Your task to perform on an android device: install app "YouTube Kids" Image 0: 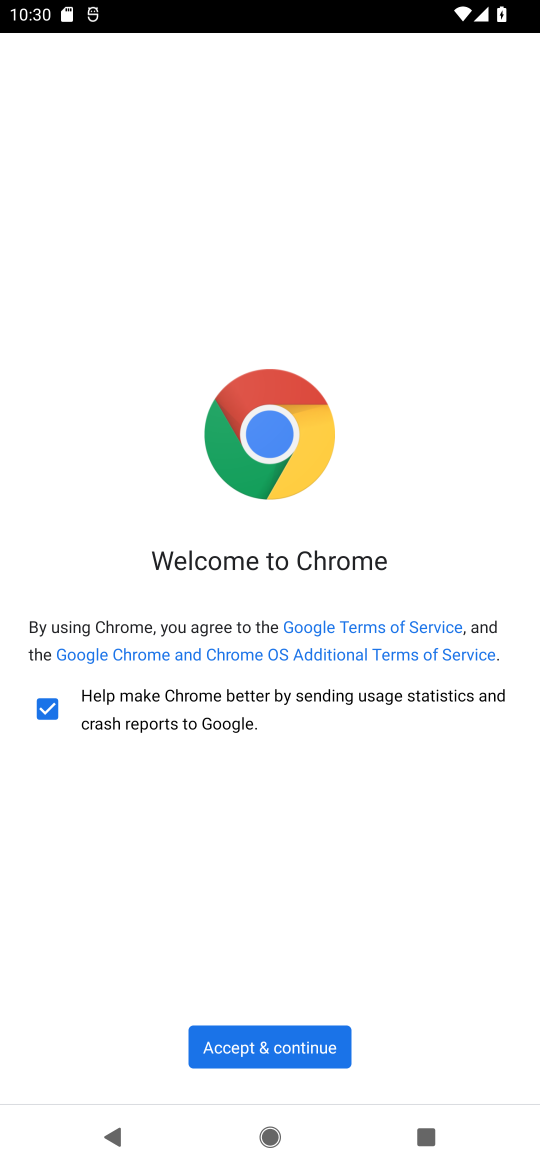
Step 0: press home button
Your task to perform on an android device: install app "YouTube Kids" Image 1: 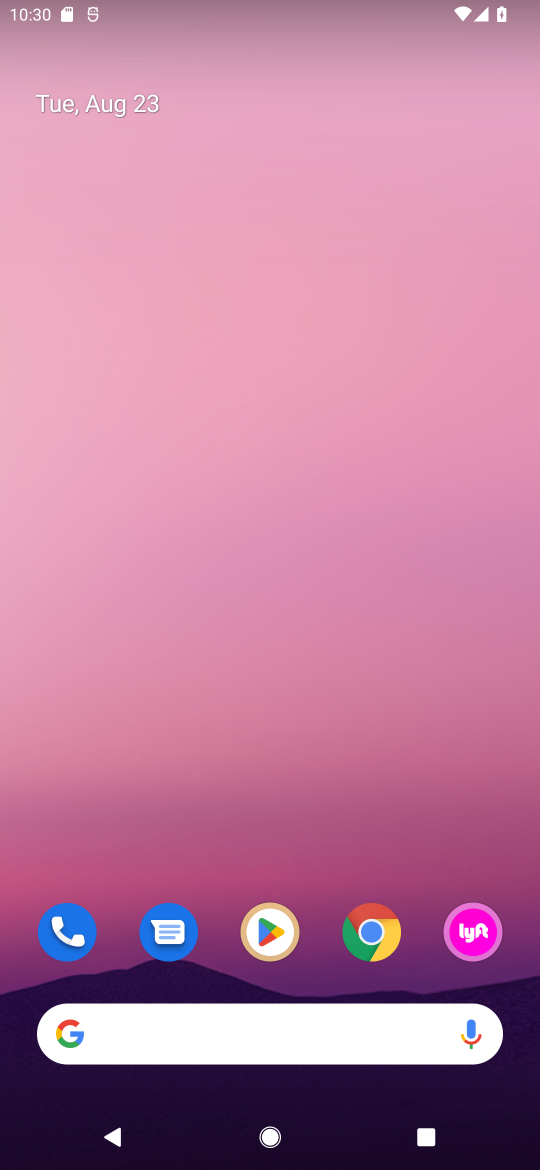
Step 1: click (283, 921)
Your task to perform on an android device: install app "YouTube Kids" Image 2: 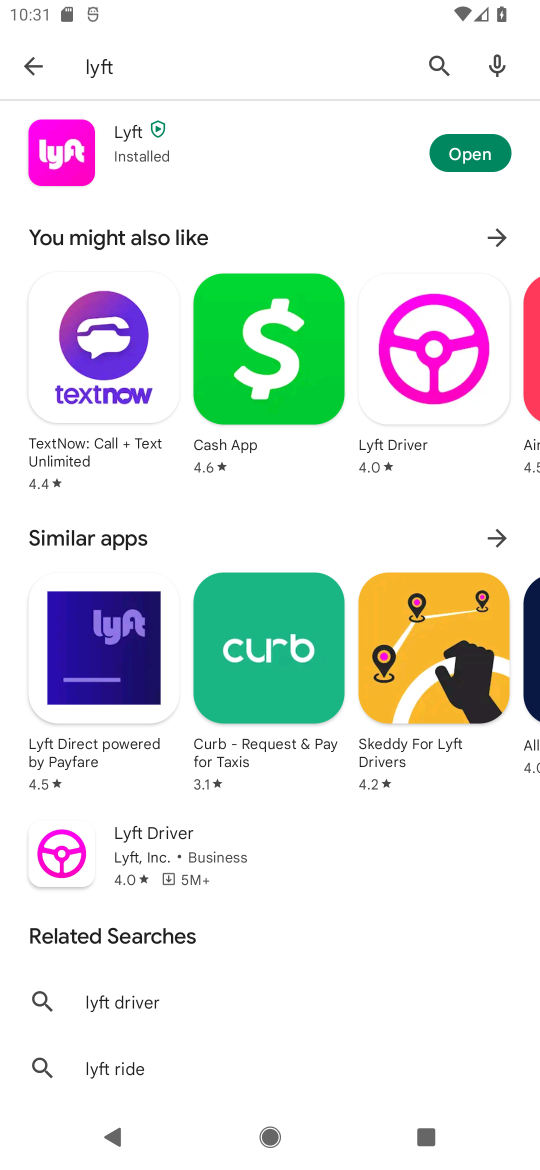
Step 2: click (459, 76)
Your task to perform on an android device: install app "YouTube Kids" Image 3: 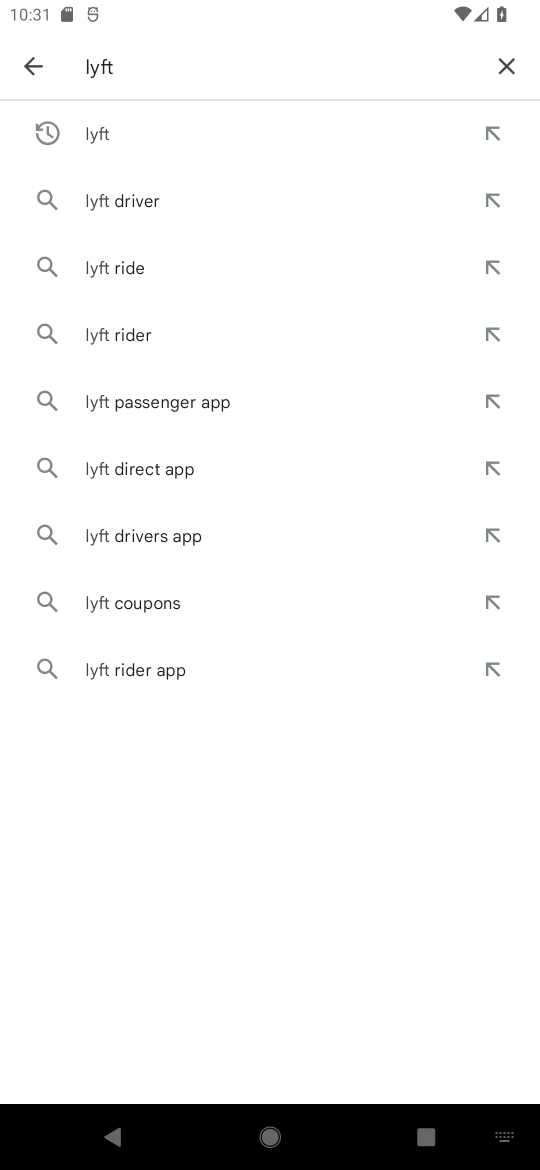
Step 3: click (491, 40)
Your task to perform on an android device: install app "YouTube Kids" Image 4: 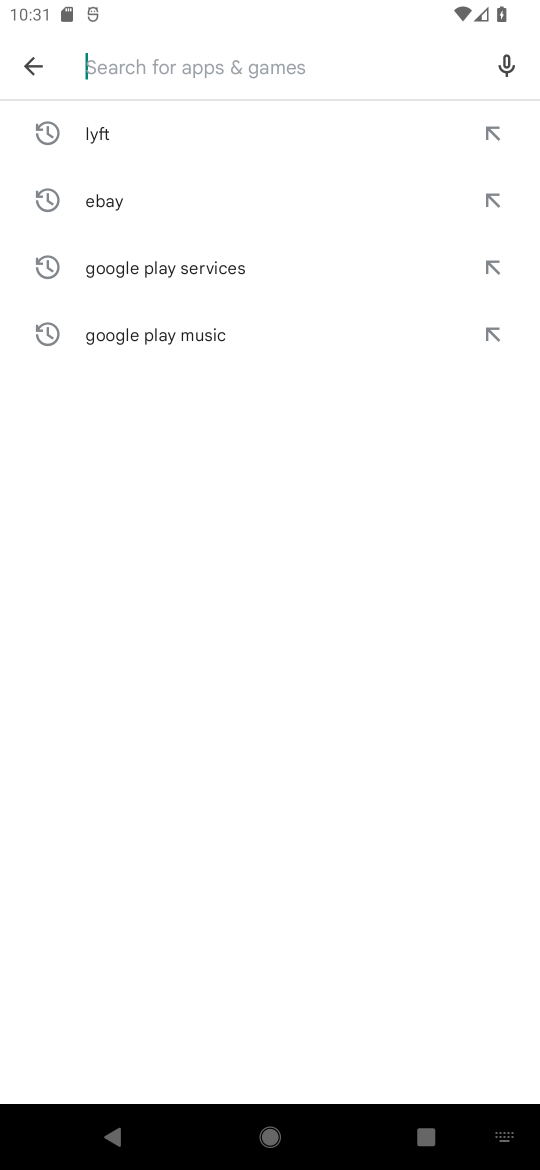
Step 4: type "YouTube Kids"
Your task to perform on an android device: install app "YouTube Kids" Image 5: 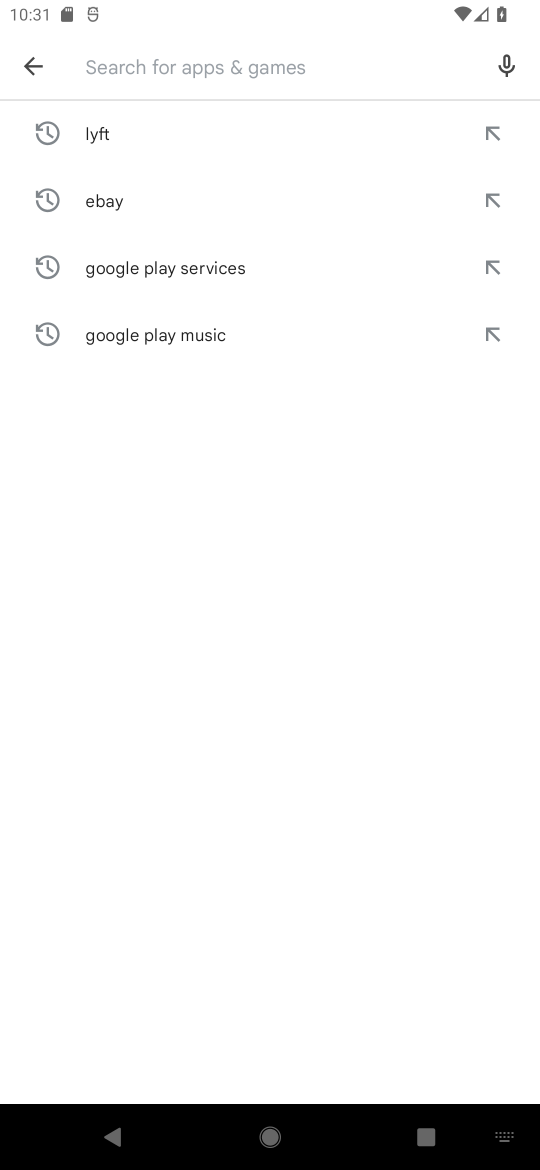
Step 5: click (240, 751)
Your task to perform on an android device: install app "YouTube Kids" Image 6: 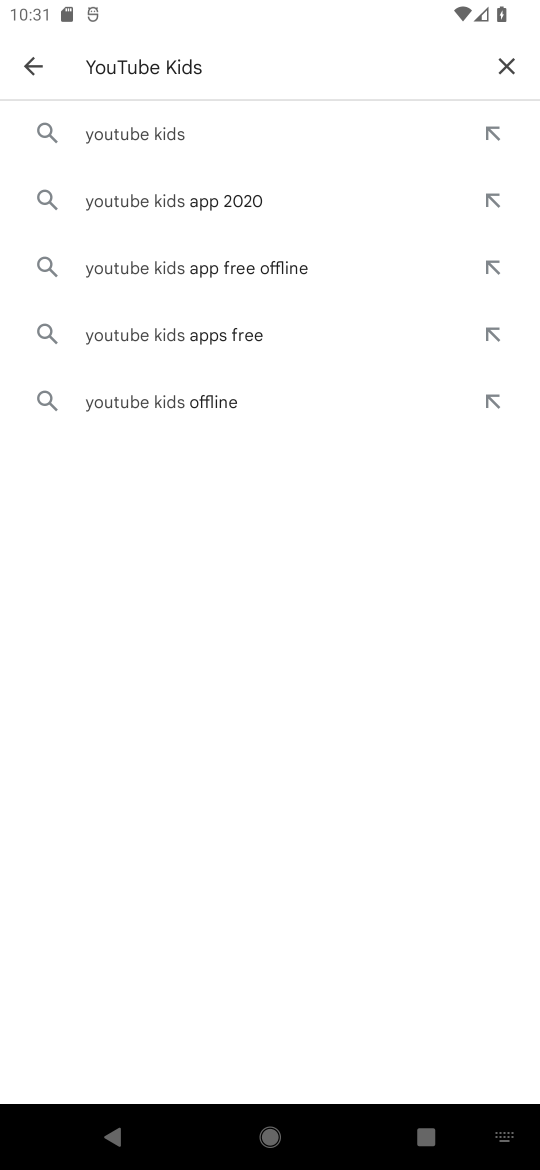
Step 6: click (198, 145)
Your task to perform on an android device: install app "YouTube Kids" Image 7: 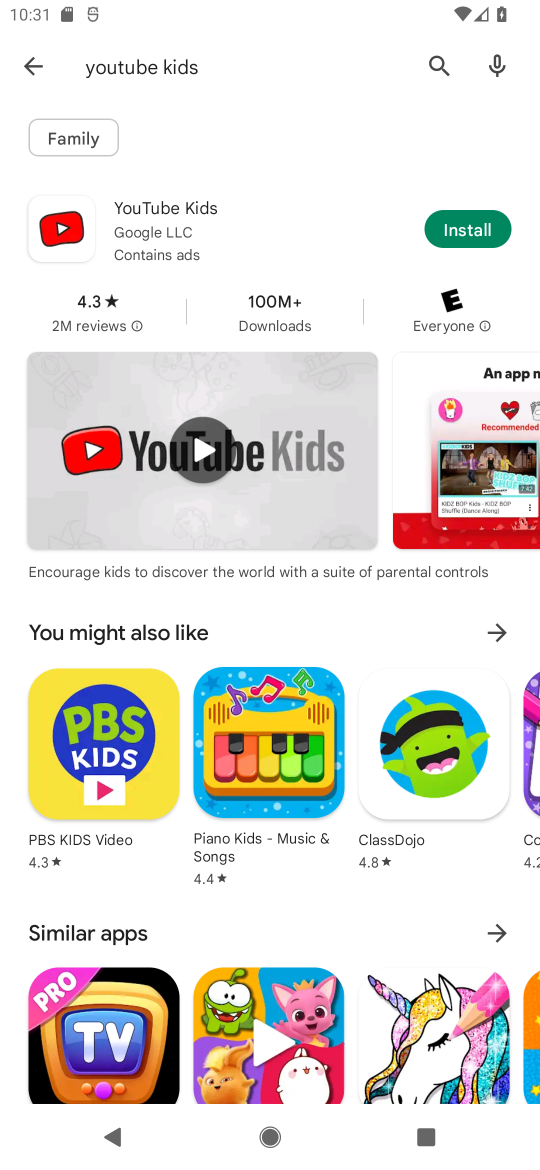
Step 7: click (458, 197)
Your task to perform on an android device: install app "YouTube Kids" Image 8: 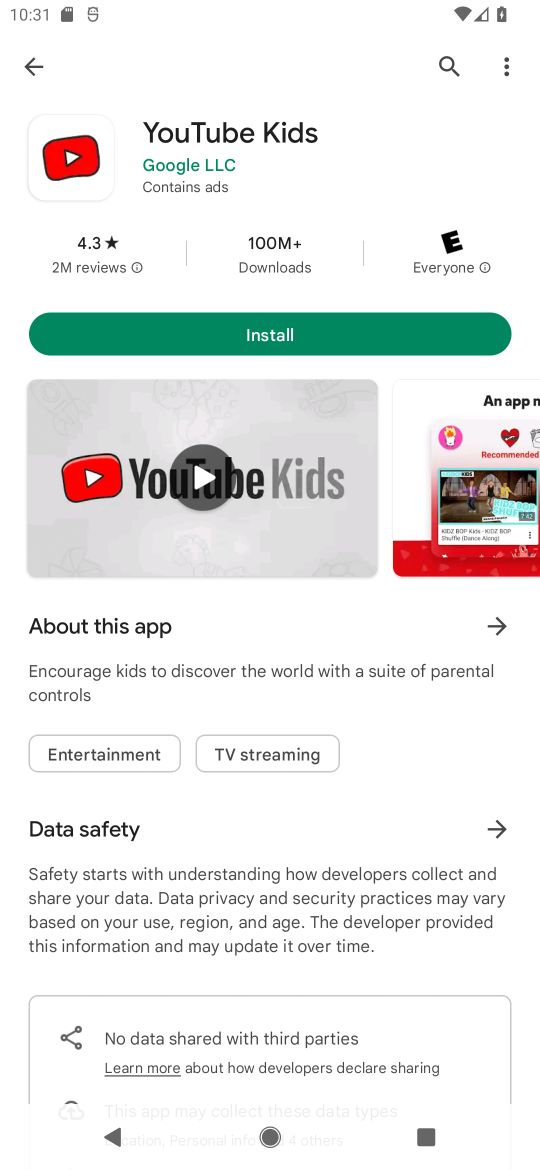
Step 8: click (245, 348)
Your task to perform on an android device: install app "YouTube Kids" Image 9: 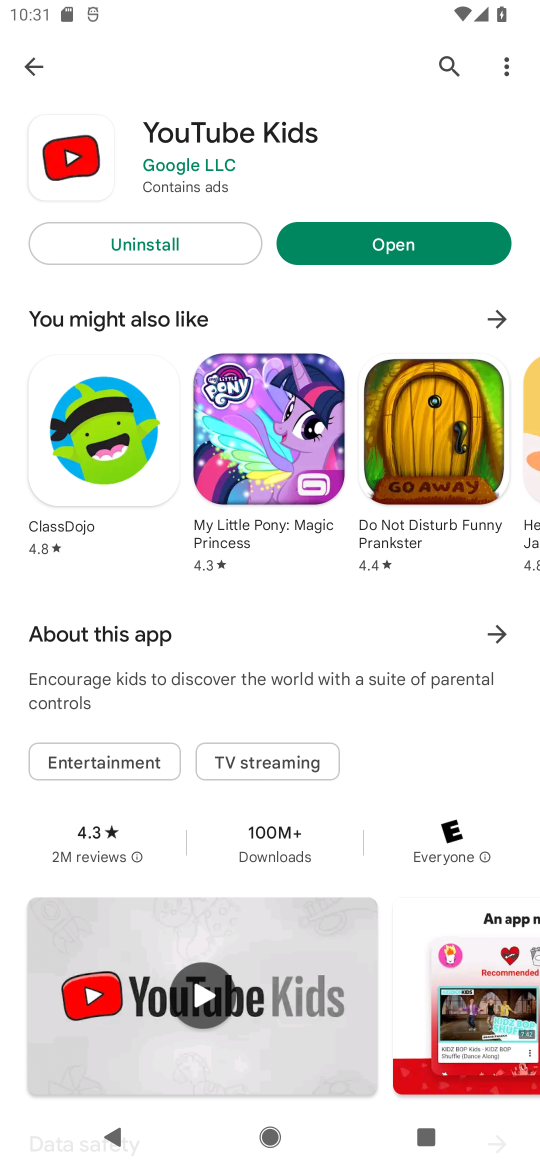
Step 9: click (399, 237)
Your task to perform on an android device: install app "YouTube Kids" Image 10: 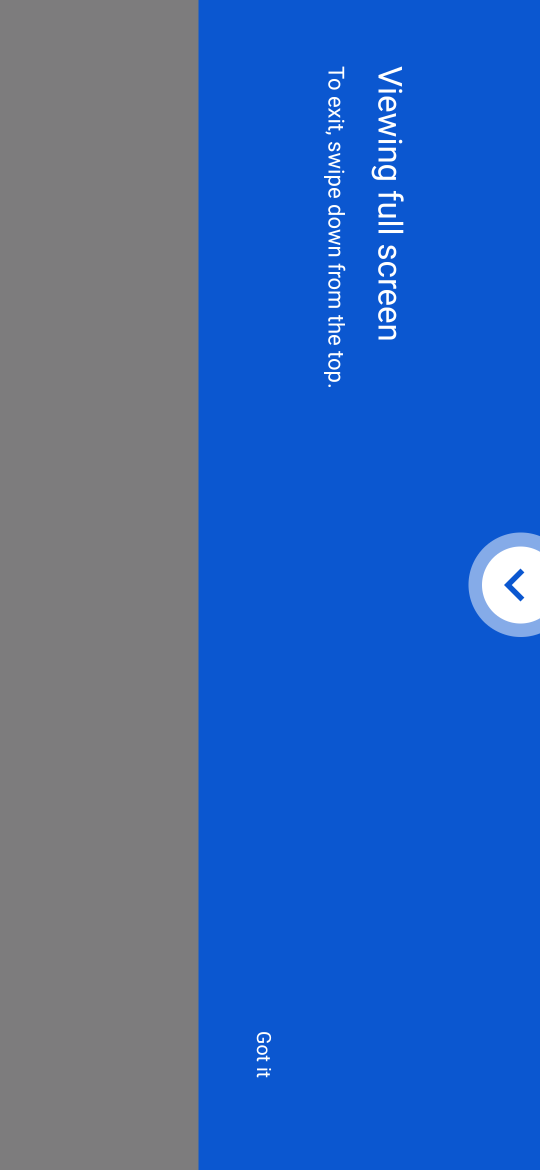
Step 10: task complete